Your task to perform on an android device: View the shopping cart on costco. Search for "razer naga" on costco, select the first entry, add it to the cart, then select checkout. Image 0: 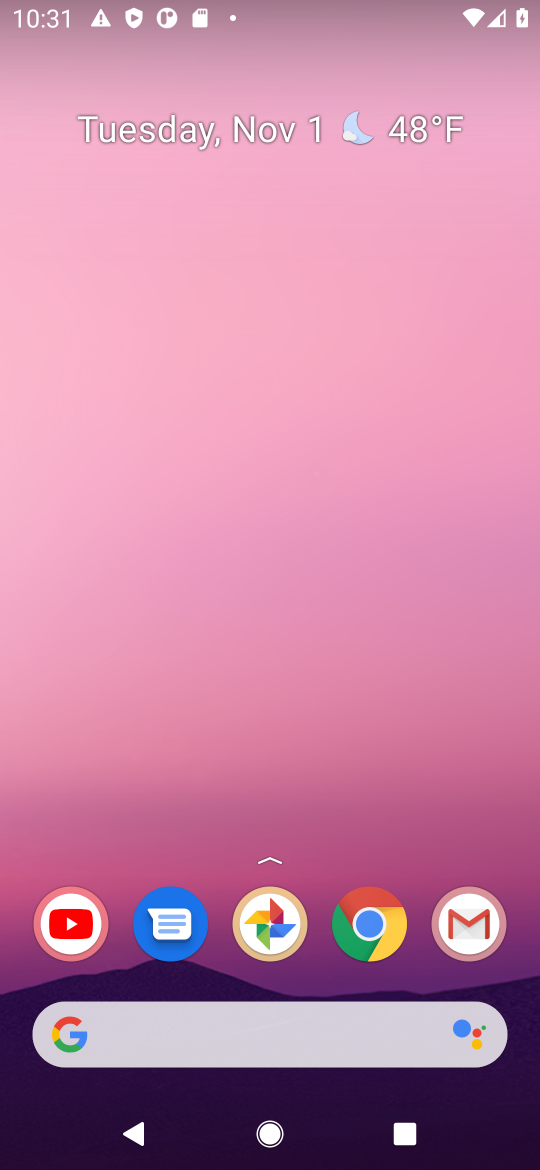
Step 0: click (376, 939)
Your task to perform on an android device: View the shopping cart on costco. Search for "razer naga" on costco, select the first entry, add it to the cart, then select checkout. Image 1: 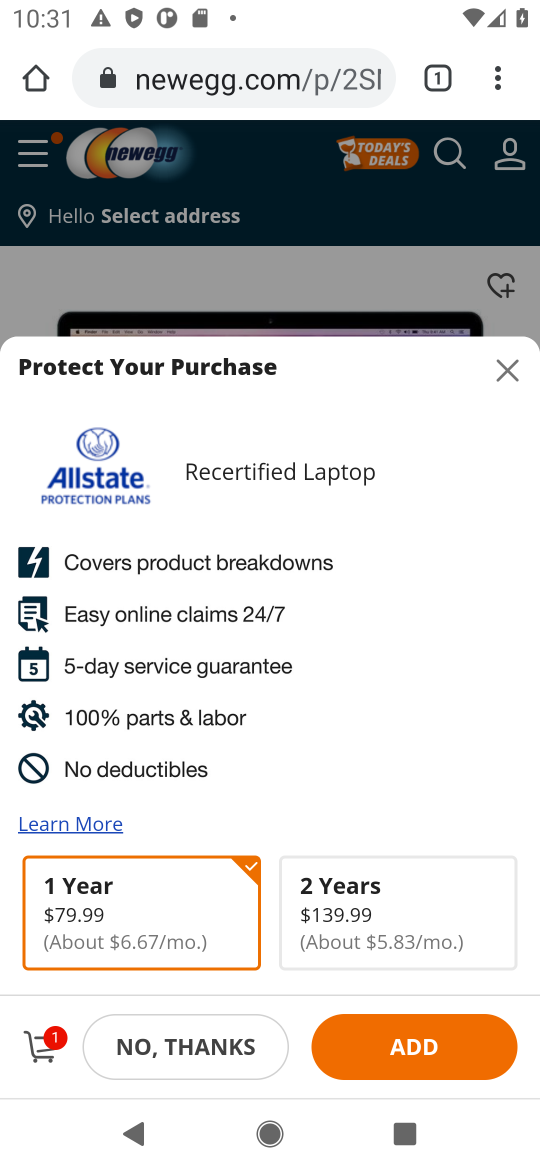
Step 1: click (254, 82)
Your task to perform on an android device: View the shopping cart on costco. Search for "razer naga" on costco, select the first entry, add it to the cart, then select checkout. Image 2: 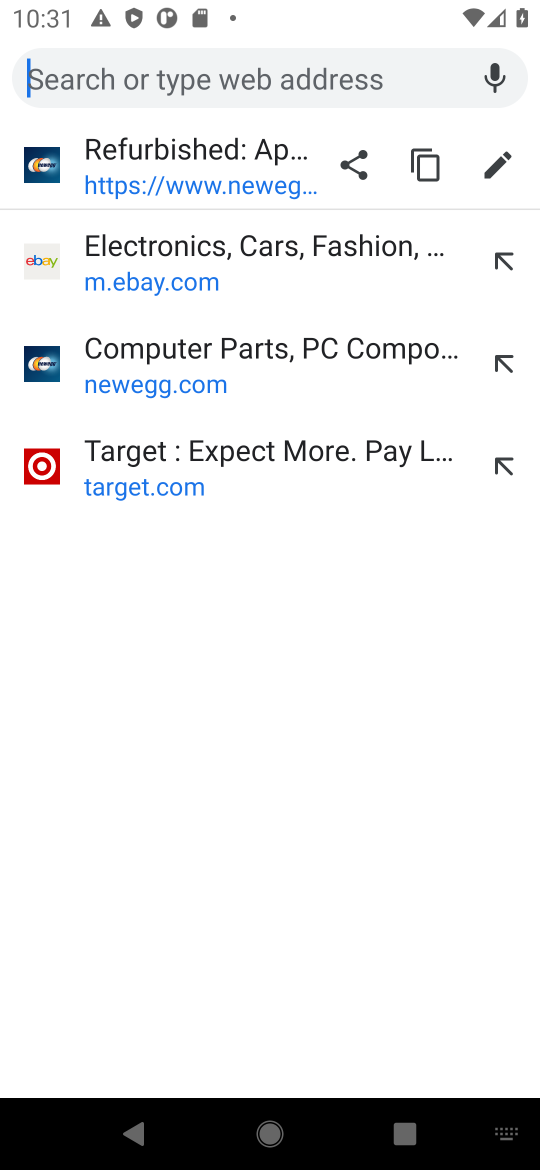
Step 2: type "costco"
Your task to perform on an android device: View the shopping cart on costco. Search for "razer naga" on costco, select the first entry, add it to the cart, then select checkout. Image 3: 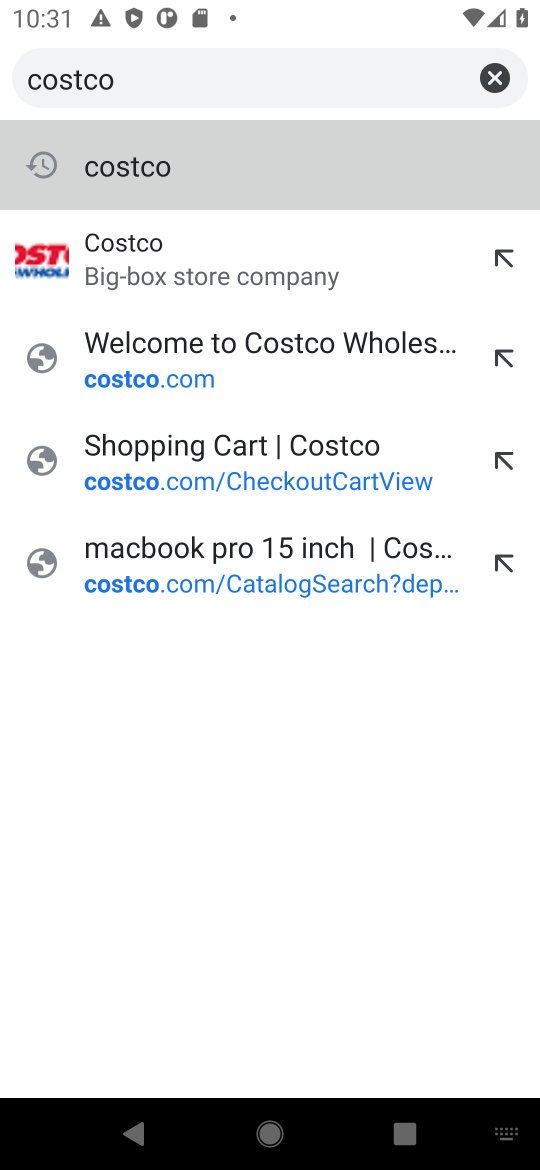
Step 3: click (160, 181)
Your task to perform on an android device: View the shopping cart on costco. Search for "razer naga" on costco, select the first entry, add it to the cart, then select checkout. Image 4: 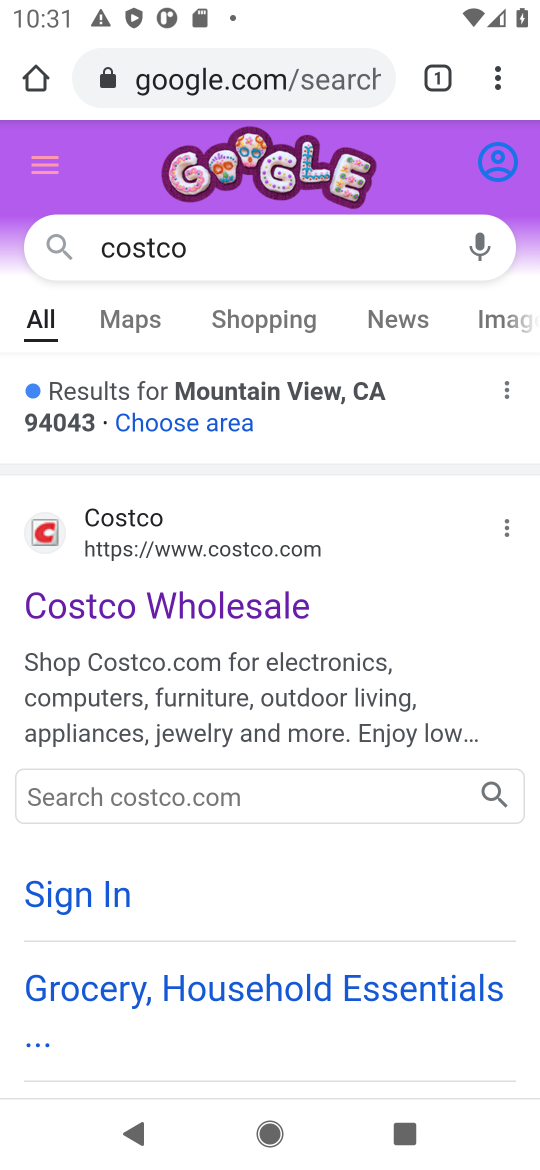
Step 4: click (162, 606)
Your task to perform on an android device: View the shopping cart on costco. Search for "razer naga" on costco, select the first entry, add it to the cart, then select checkout. Image 5: 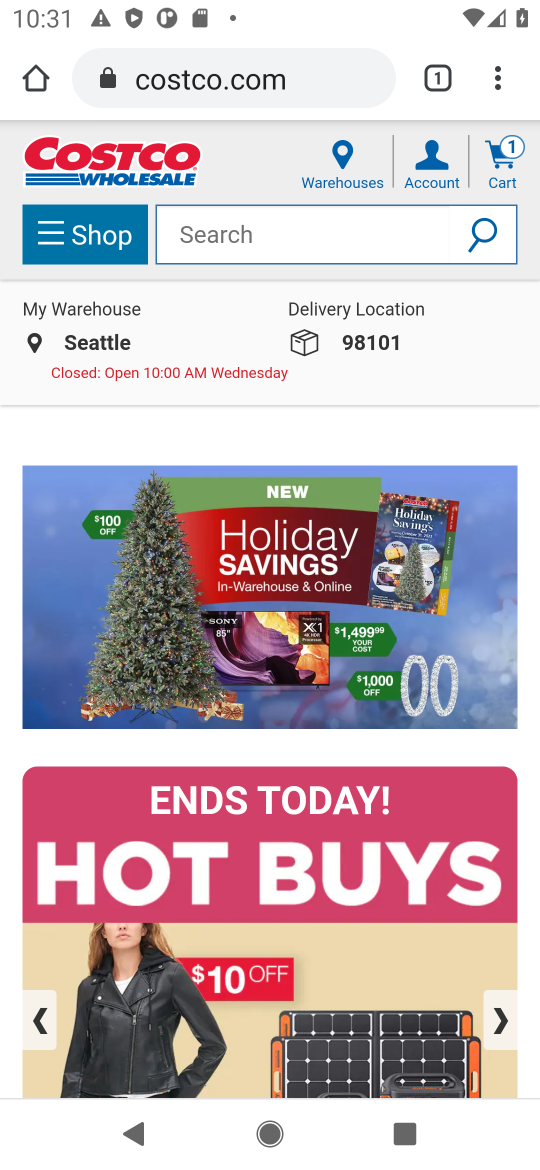
Step 5: click (500, 167)
Your task to perform on an android device: View the shopping cart on costco. Search for "razer naga" on costco, select the first entry, add it to the cart, then select checkout. Image 6: 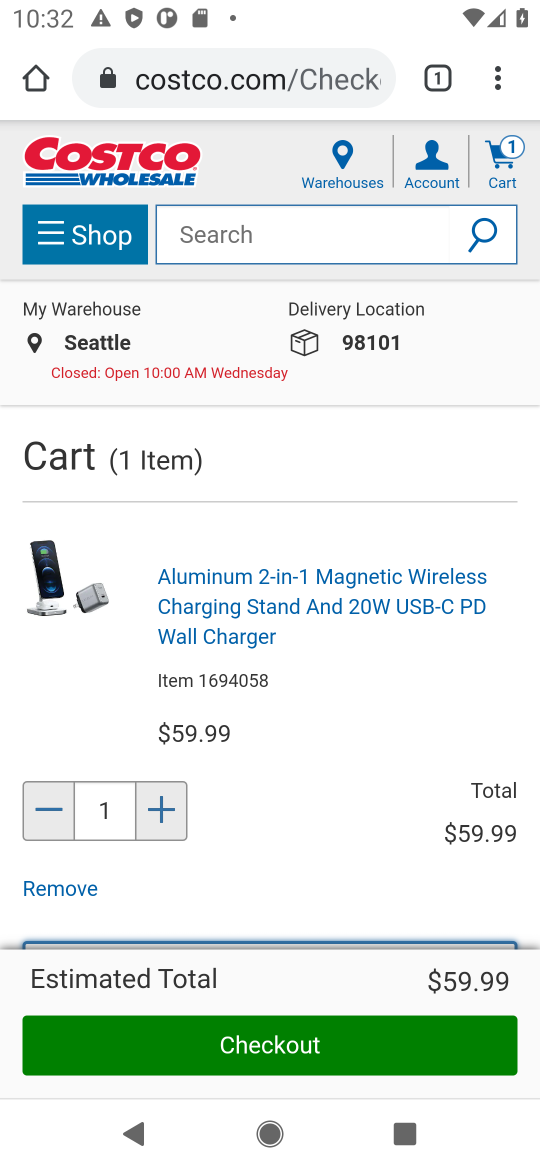
Step 6: click (327, 241)
Your task to perform on an android device: View the shopping cart on costco. Search for "razer naga" on costco, select the first entry, add it to the cart, then select checkout. Image 7: 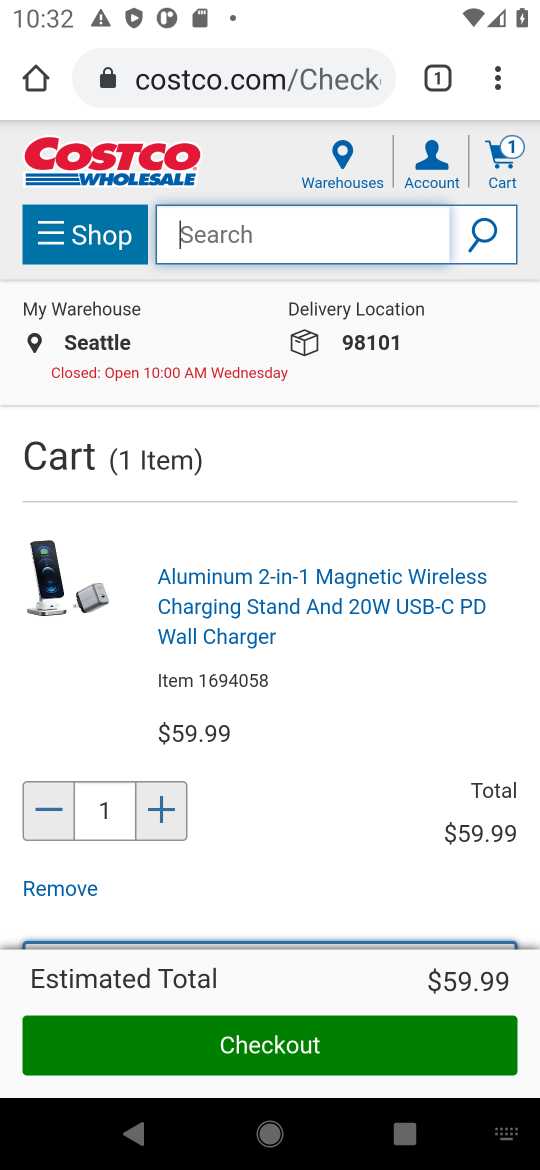
Step 7: type "razer naga"
Your task to perform on an android device: View the shopping cart on costco. Search for "razer naga" on costco, select the first entry, add it to the cart, then select checkout. Image 8: 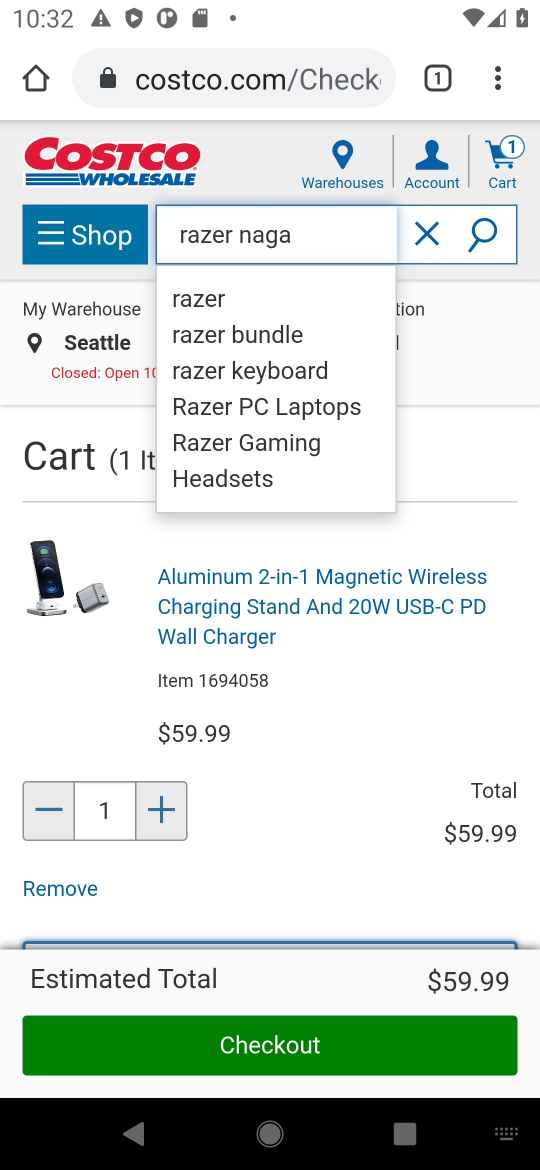
Step 8: click (488, 236)
Your task to perform on an android device: View the shopping cart on costco. Search for "razer naga" on costco, select the first entry, add it to the cart, then select checkout. Image 9: 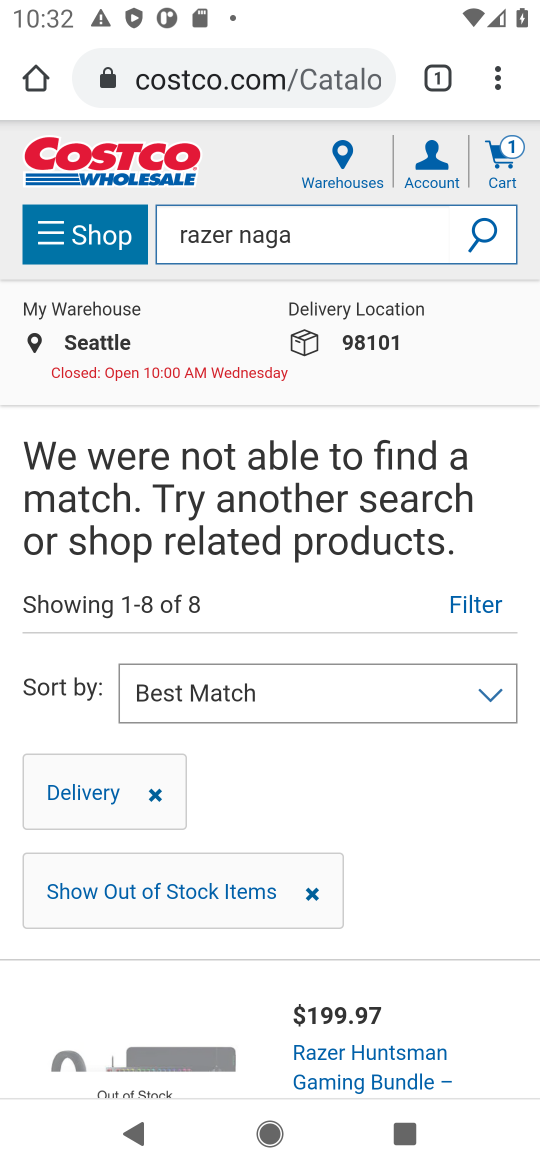
Step 9: task complete